Your task to perform on an android device: Go to sound settings Image 0: 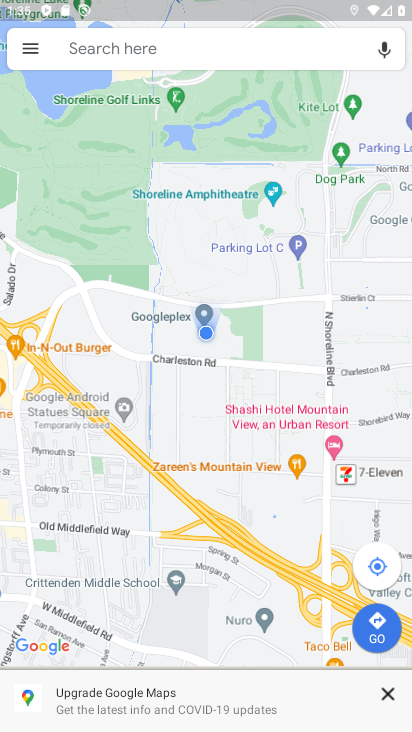
Step 0: press home button
Your task to perform on an android device: Go to sound settings Image 1: 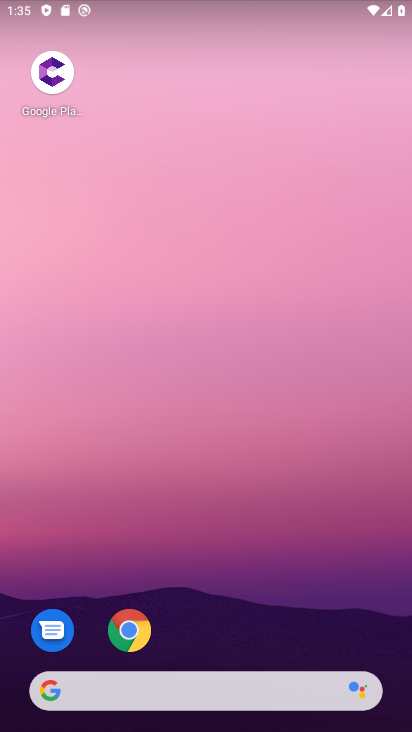
Step 1: drag from (188, 655) to (210, 89)
Your task to perform on an android device: Go to sound settings Image 2: 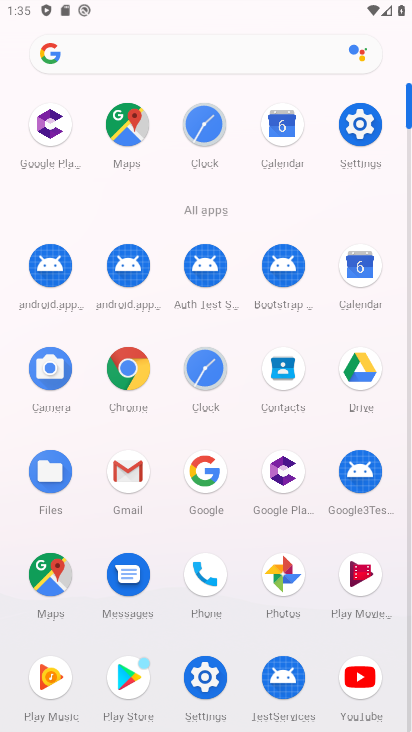
Step 2: click (363, 130)
Your task to perform on an android device: Go to sound settings Image 3: 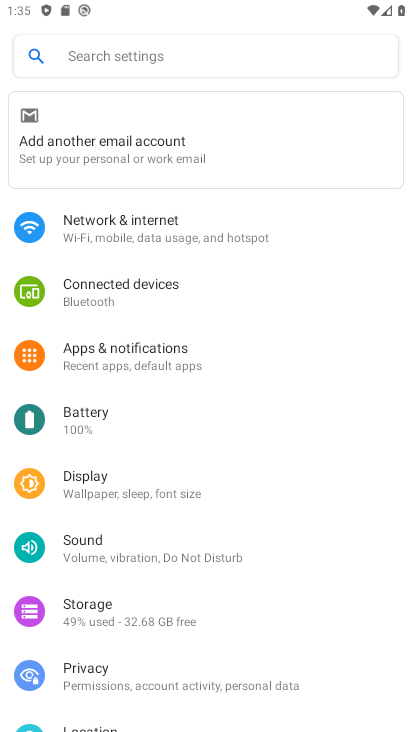
Step 3: click (117, 542)
Your task to perform on an android device: Go to sound settings Image 4: 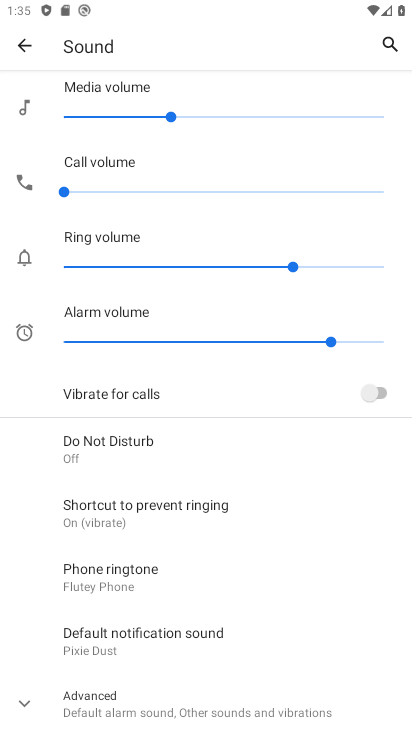
Step 4: task complete